Your task to perform on an android device: toggle pop-ups in chrome Image 0: 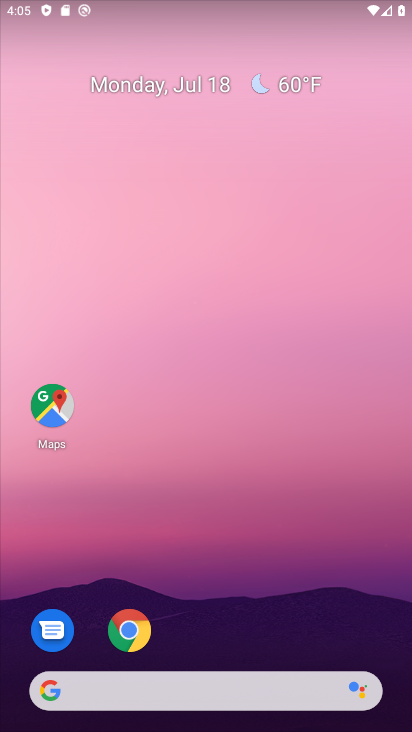
Step 0: drag from (337, 690) to (259, 204)
Your task to perform on an android device: toggle pop-ups in chrome Image 1: 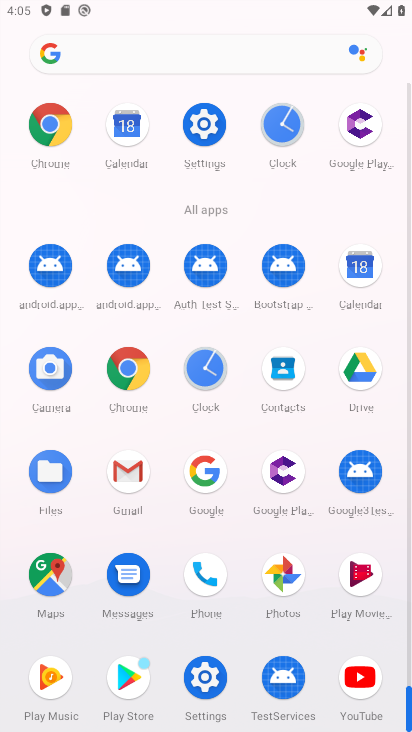
Step 1: click (60, 126)
Your task to perform on an android device: toggle pop-ups in chrome Image 2: 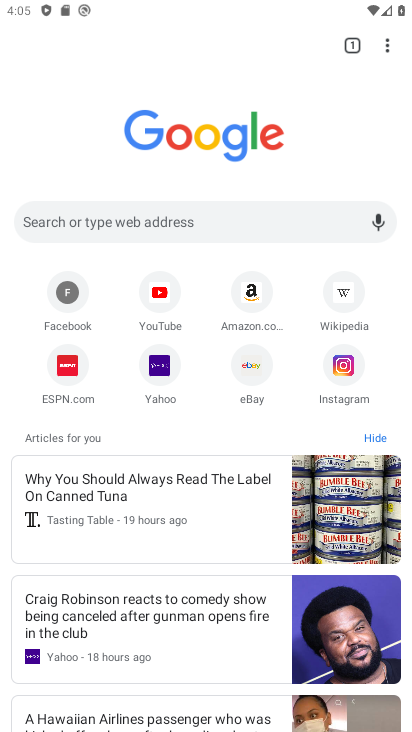
Step 2: drag from (386, 38) to (228, 376)
Your task to perform on an android device: toggle pop-ups in chrome Image 3: 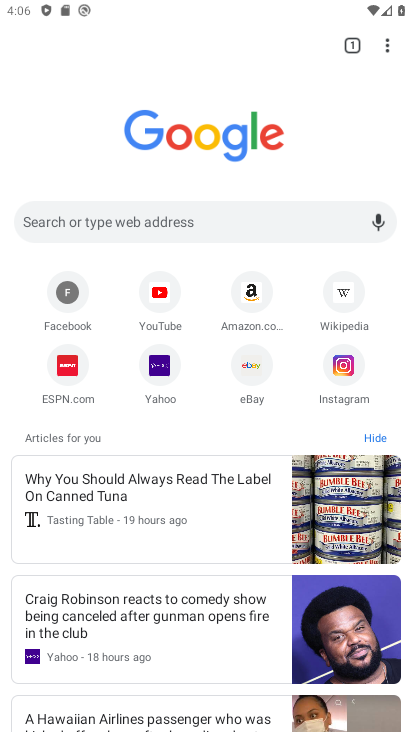
Step 3: click (224, 379)
Your task to perform on an android device: toggle pop-ups in chrome Image 4: 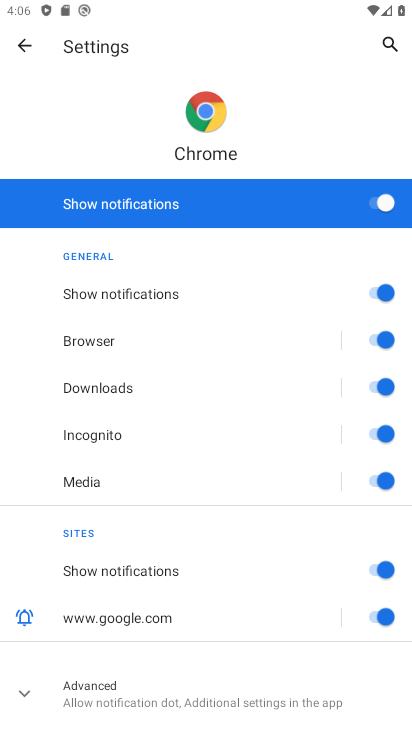
Step 4: drag from (114, 527) to (131, 201)
Your task to perform on an android device: toggle pop-ups in chrome Image 5: 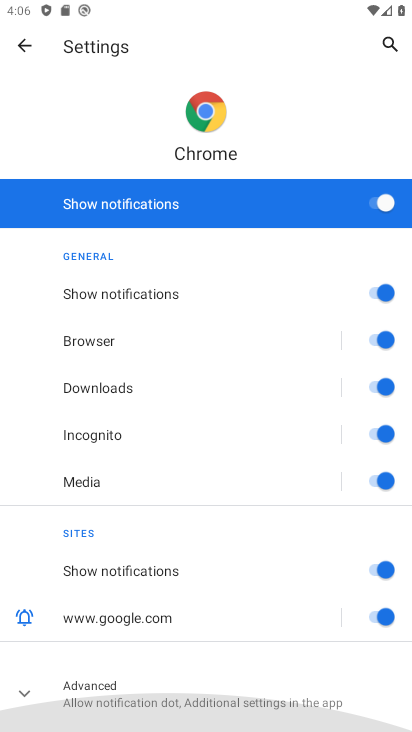
Step 5: drag from (188, 598) to (186, 317)
Your task to perform on an android device: toggle pop-ups in chrome Image 6: 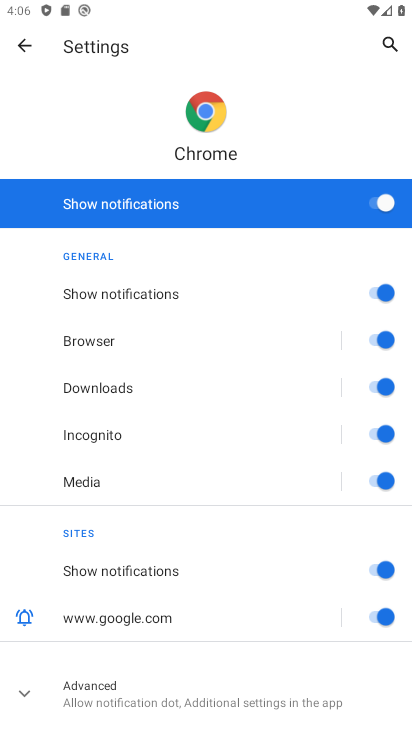
Step 6: click (17, 32)
Your task to perform on an android device: toggle pop-ups in chrome Image 7: 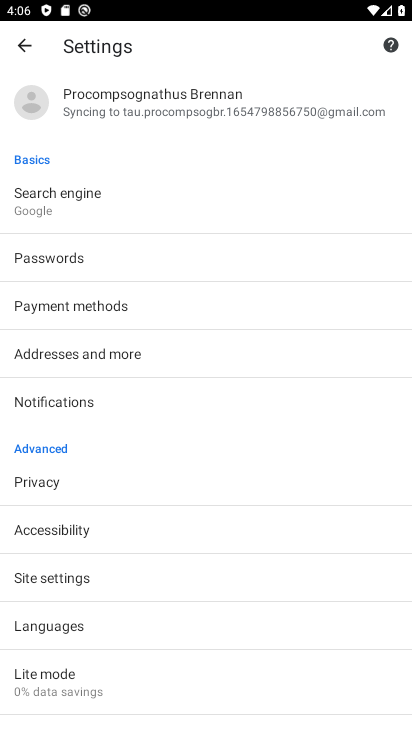
Step 7: click (52, 584)
Your task to perform on an android device: toggle pop-ups in chrome Image 8: 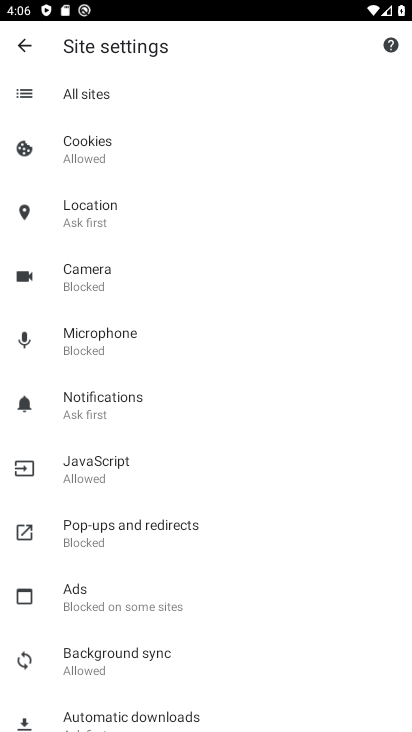
Step 8: click (100, 531)
Your task to perform on an android device: toggle pop-ups in chrome Image 9: 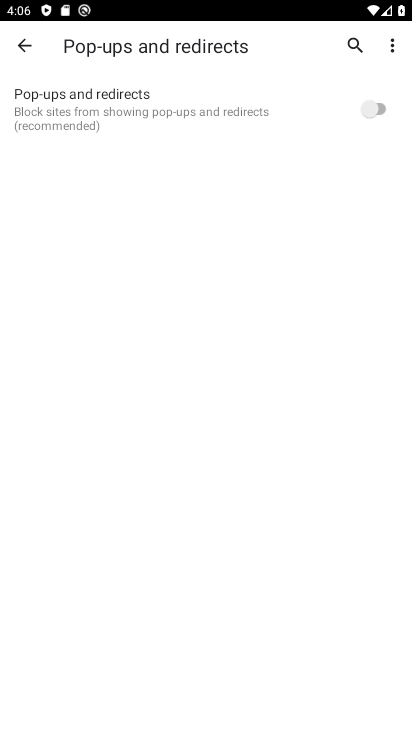
Step 9: click (369, 101)
Your task to perform on an android device: toggle pop-ups in chrome Image 10: 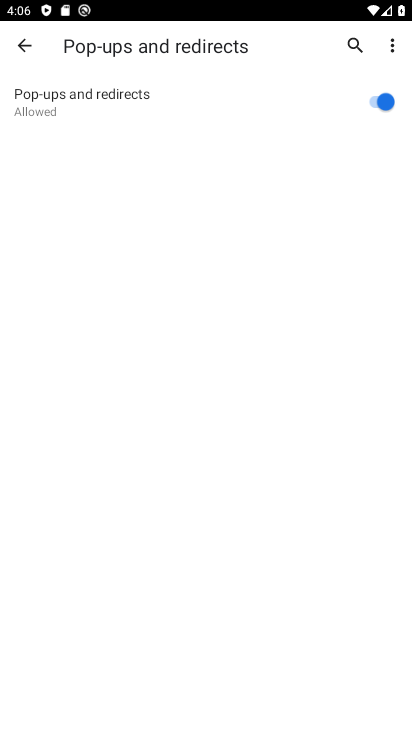
Step 10: task complete